Your task to perform on an android device: add a contact in the contacts app Image 0: 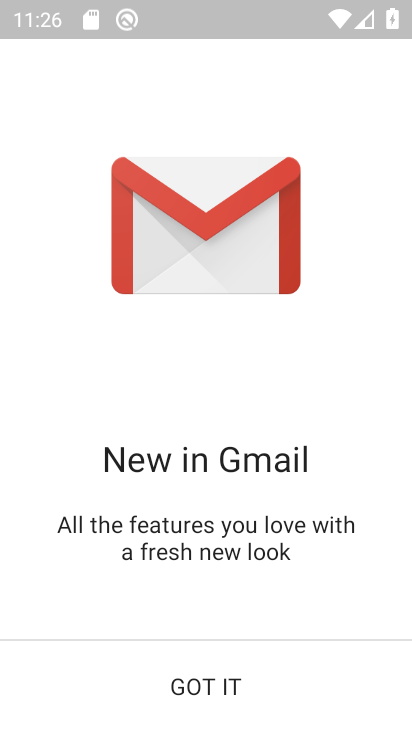
Step 0: press home button
Your task to perform on an android device: add a contact in the contacts app Image 1: 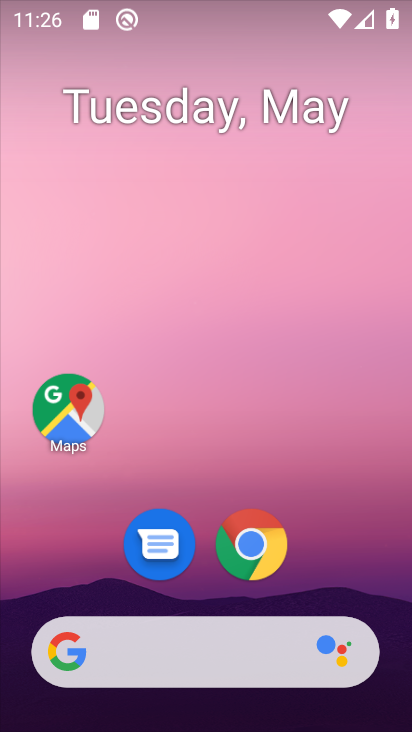
Step 1: drag from (365, 391) to (356, 281)
Your task to perform on an android device: add a contact in the contacts app Image 2: 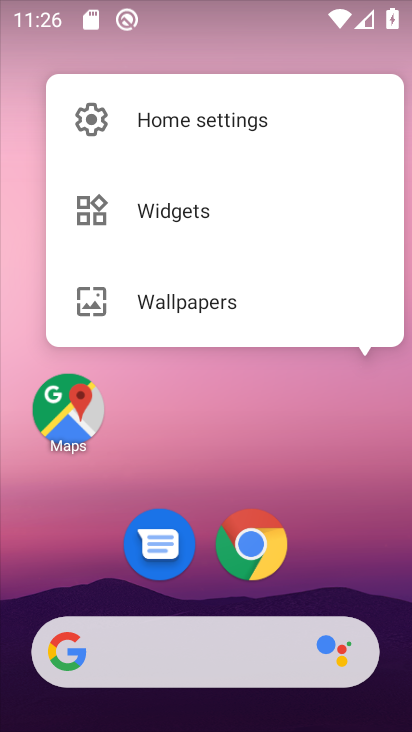
Step 2: drag from (378, 550) to (363, 235)
Your task to perform on an android device: add a contact in the contacts app Image 3: 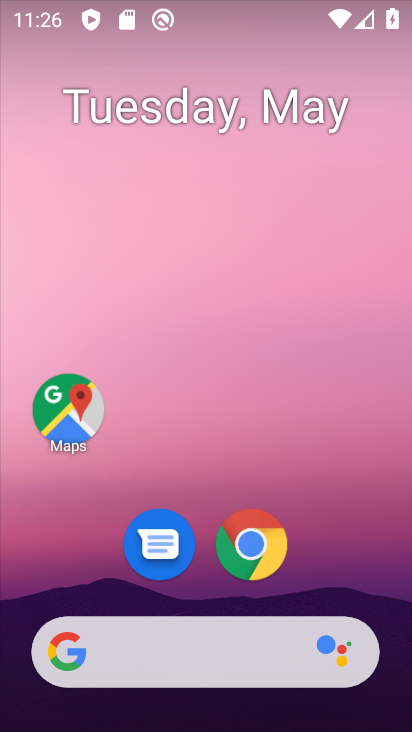
Step 3: drag from (349, 594) to (346, 113)
Your task to perform on an android device: add a contact in the contacts app Image 4: 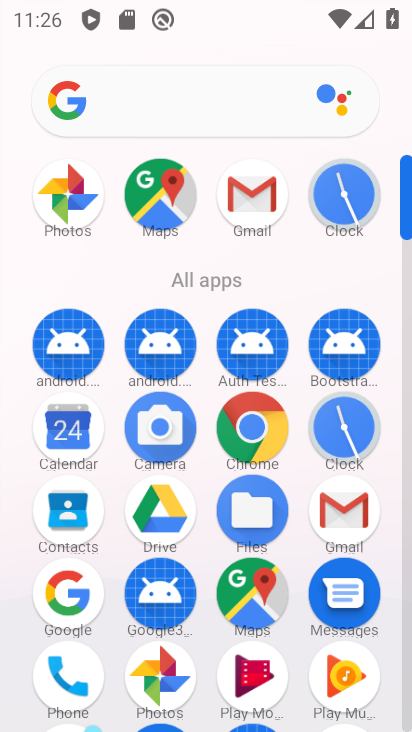
Step 4: click (55, 532)
Your task to perform on an android device: add a contact in the contacts app Image 5: 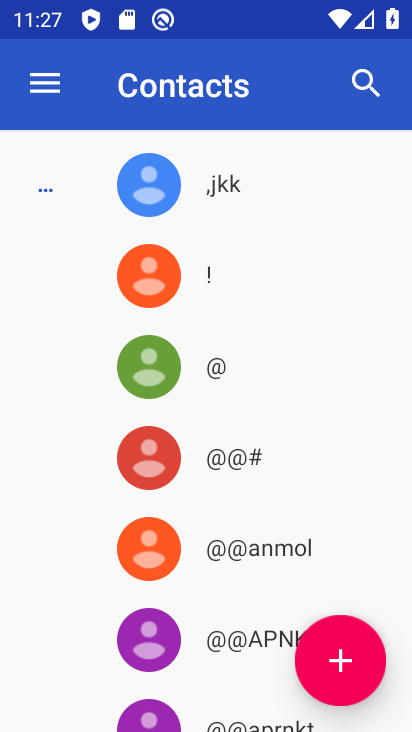
Step 5: click (360, 77)
Your task to perform on an android device: add a contact in the contacts app Image 6: 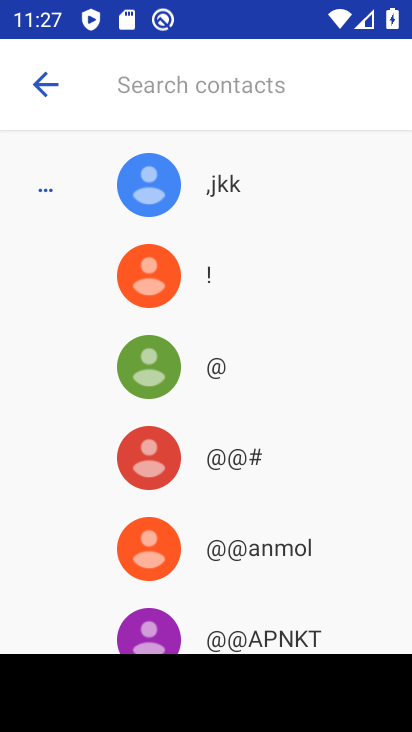
Step 6: click (30, 79)
Your task to perform on an android device: add a contact in the contacts app Image 7: 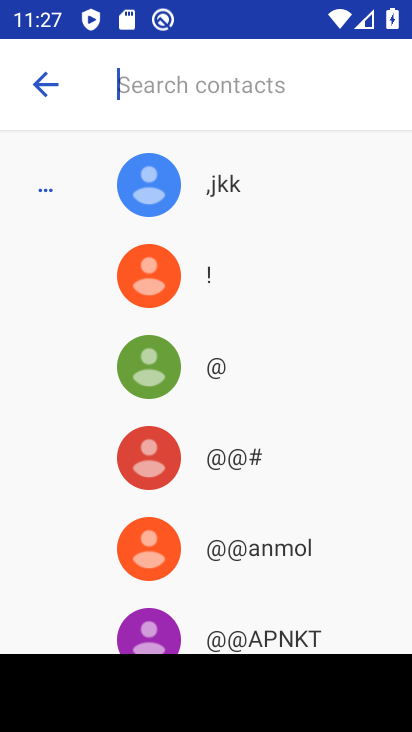
Step 7: click (57, 88)
Your task to perform on an android device: add a contact in the contacts app Image 8: 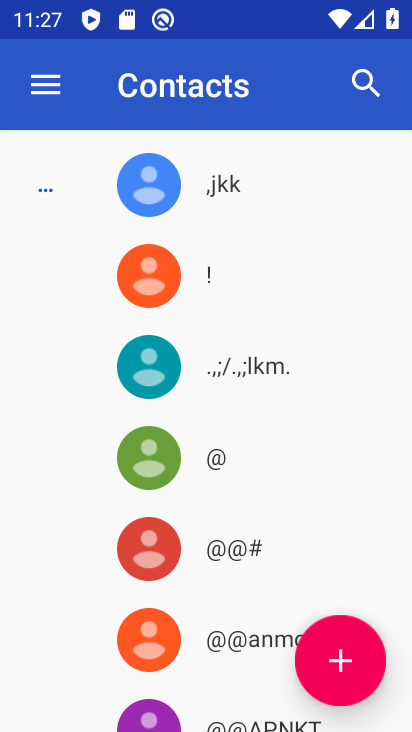
Step 8: click (334, 653)
Your task to perform on an android device: add a contact in the contacts app Image 9: 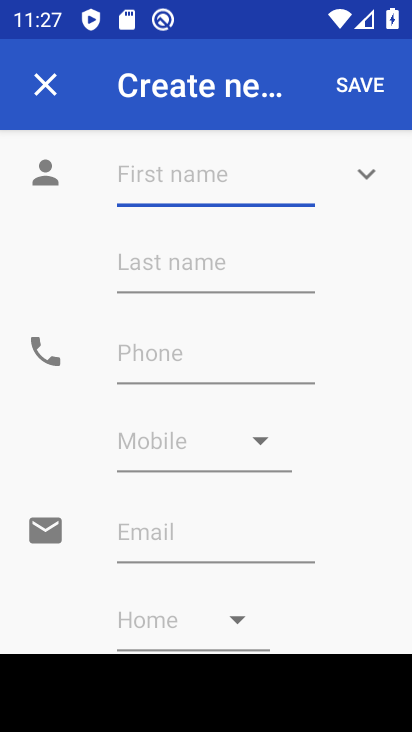
Step 9: type "woifwo"
Your task to perform on an android device: add a contact in the contacts app Image 10: 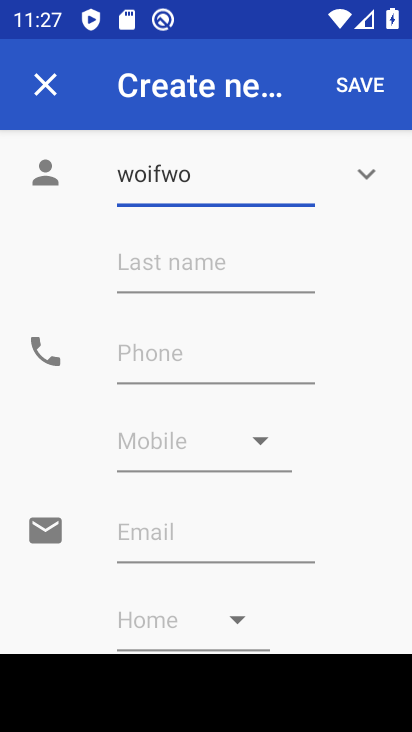
Step 10: click (206, 359)
Your task to perform on an android device: add a contact in the contacts app Image 11: 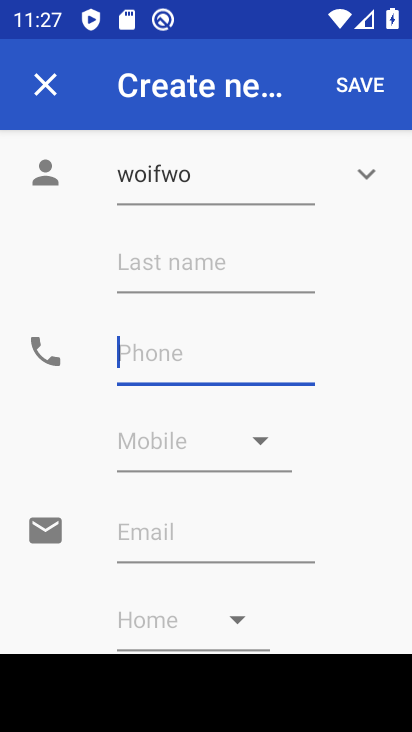
Step 11: type "398794029"
Your task to perform on an android device: add a contact in the contacts app Image 12: 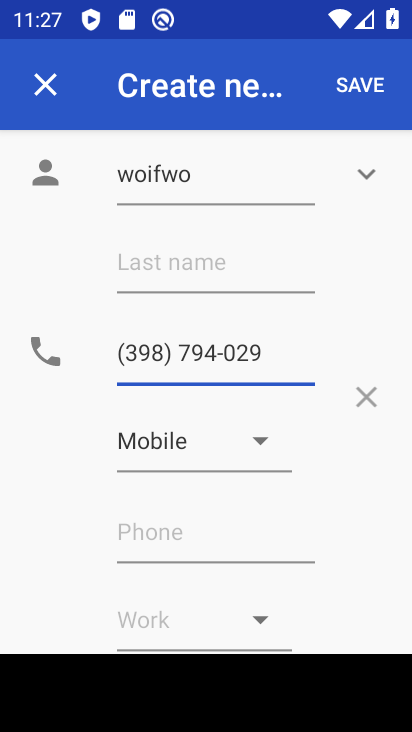
Step 12: click (359, 95)
Your task to perform on an android device: add a contact in the contacts app Image 13: 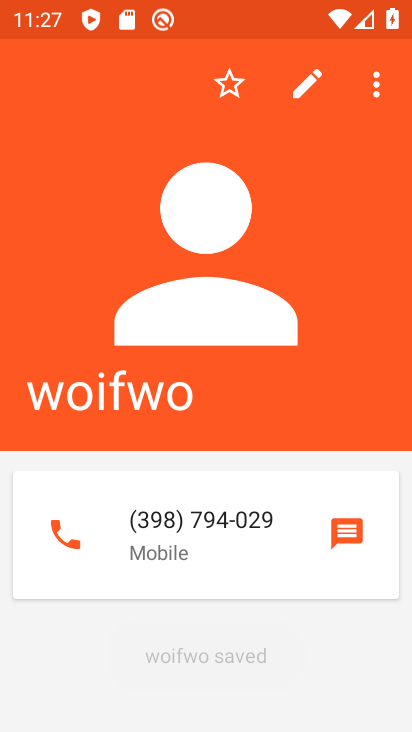
Step 13: task complete